Your task to perform on an android device: Open the calendar app, open the side menu, and click the "Day" option Image 0: 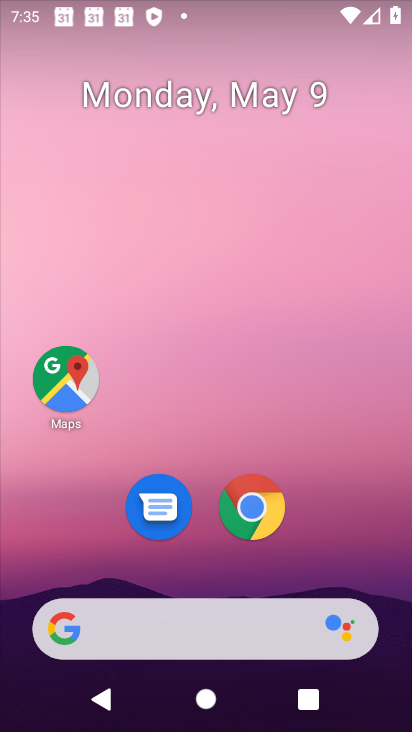
Step 0: drag from (253, 667) to (370, 151)
Your task to perform on an android device: Open the calendar app, open the side menu, and click the "Day" option Image 1: 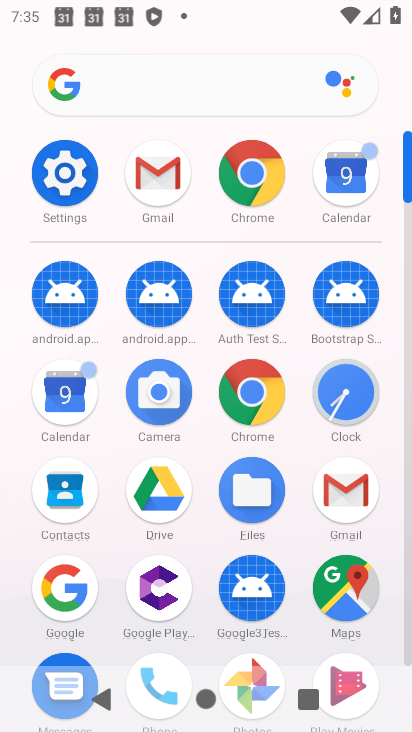
Step 1: click (341, 186)
Your task to perform on an android device: Open the calendar app, open the side menu, and click the "Day" option Image 2: 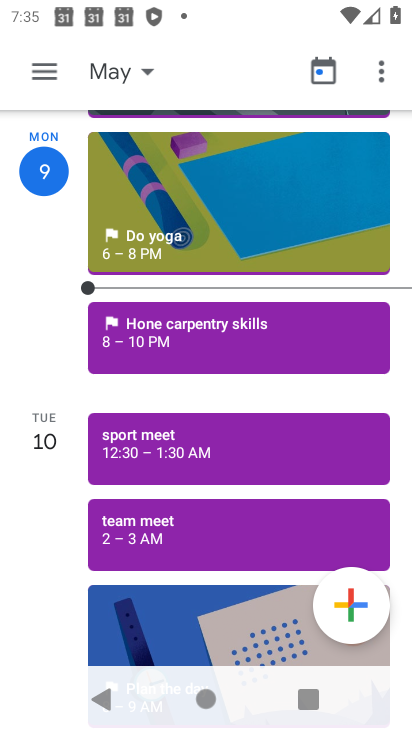
Step 2: click (42, 69)
Your task to perform on an android device: Open the calendar app, open the side menu, and click the "Day" option Image 3: 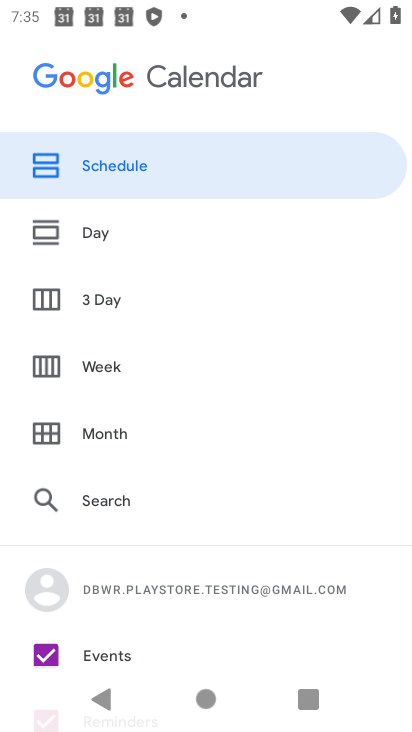
Step 3: click (111, 238)
Your task to perform on an android device: Open the calendar app, open the side menu, and click the "Day" option Image 4: 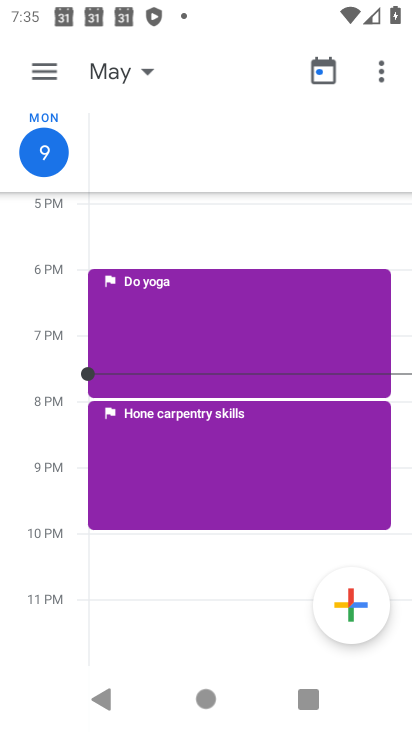
Step 4: task complete